Your task to perform on an android device: What is the news today? Image 0: 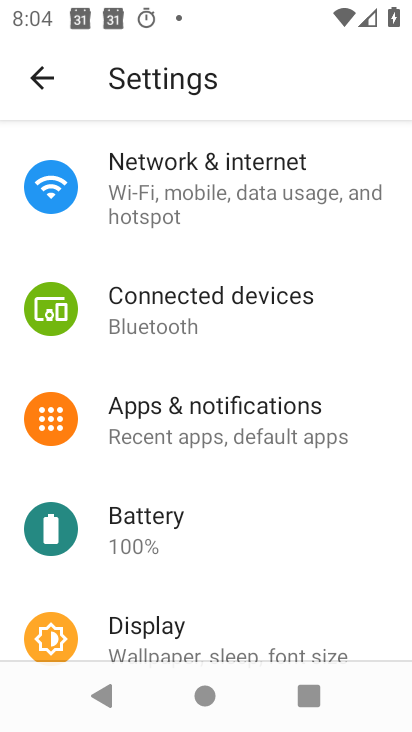
Step 0: press home button
Your task to perform on an android device: What is the news today? Image 1: 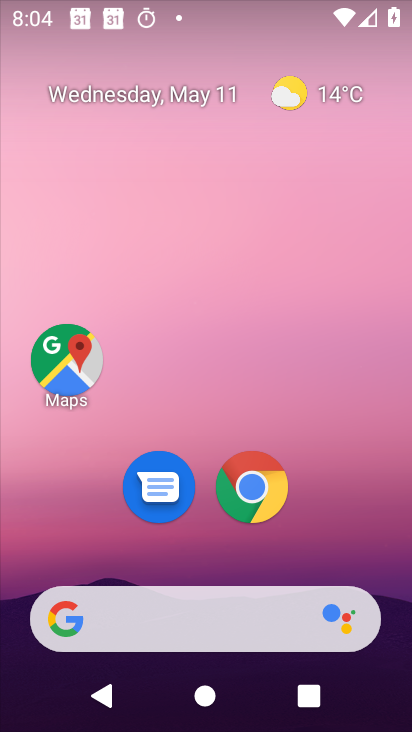
Step 1: task complete